Your task to perform on an android device: Show me popular games on the Play Store Image 0: 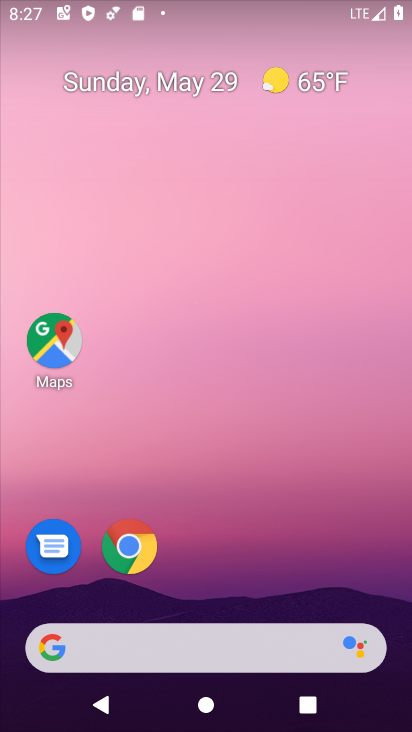
Step 0: drag from (241, 576) to (240, 215)
Your task to perform on an android device: Show me popular games on the Play Store Image 1: 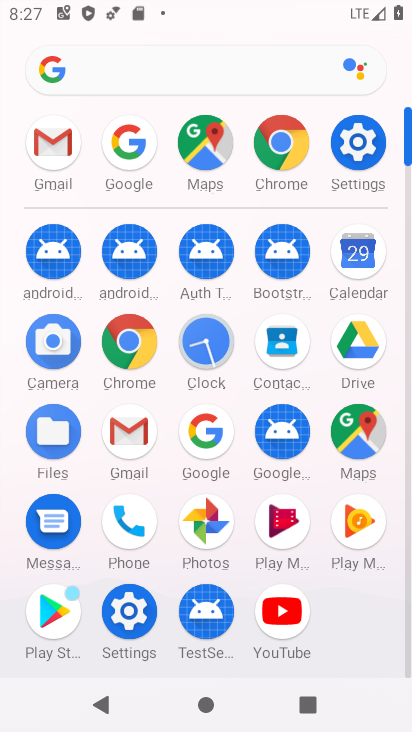
Step 1: click (43, 615)
Your task to perform on an android device: Show me popular games on the Play Store Image 2: 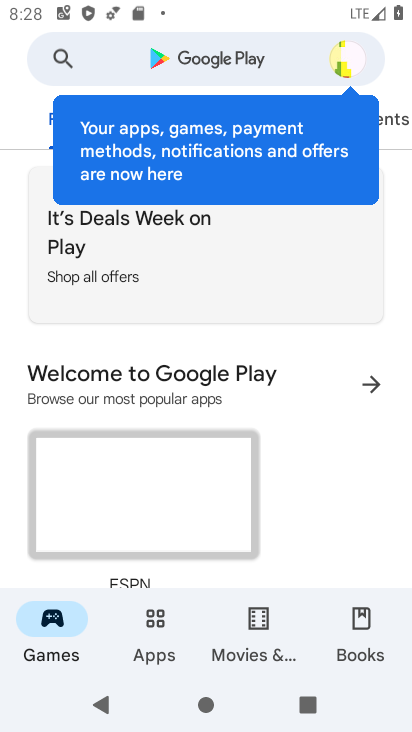
Step 2: click (186, 65)
Your task to perform on an android device: Show me popular games on the Play Store Image 3: 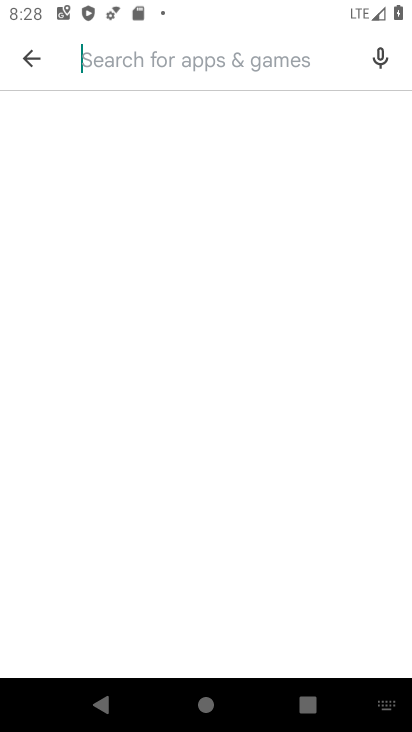
Step 3: type "popular games"
Your task to perform on an android device: Show me popular games on the Play Store Image 4: 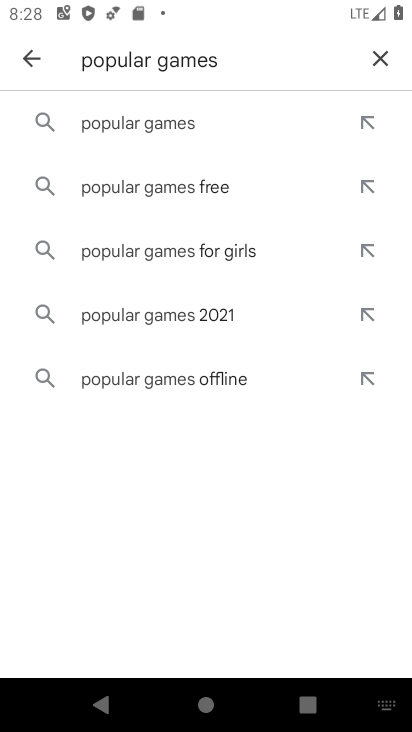
Step 4: click (138, 124)
Your task to perform on an android device: Show me popular games on the Play Store Image 5: 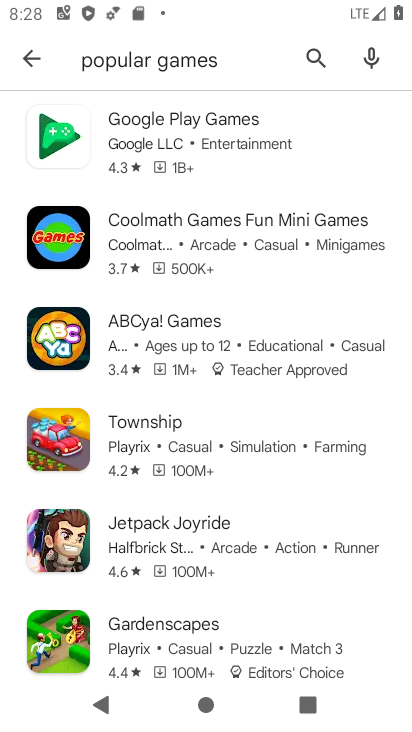
Step 5: task complete